Your task to perform on an android device: Open Google Chrome Image 0: 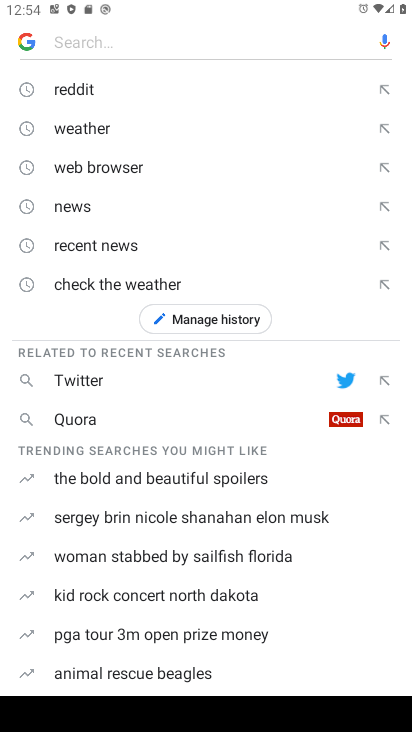
Step 0: press home button
Your task to perform on an android device: Open Google Chrome Image 1: 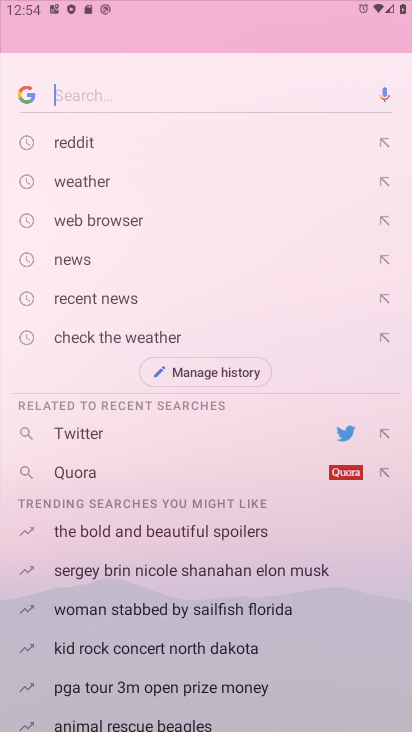
Step 1: drag from (380, 669) to (217, 5)
Your task to perform on an android device: Open Google Chrome Image 2: 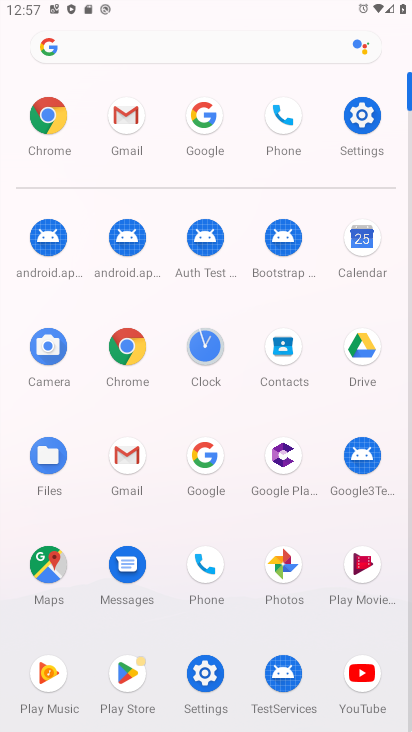
Step 2: click (139, 362)
Your task to perform on an android device: Open Google Chrome Image 3: 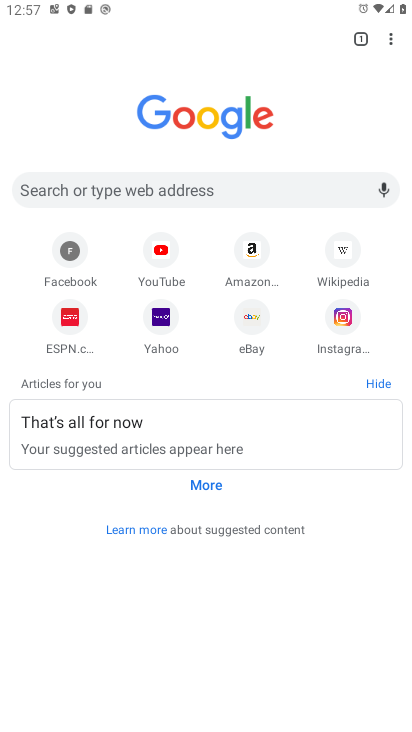
Step 3: task complete